Your task to perform on an android device: turn on the 12-hour format for clock Image 0: 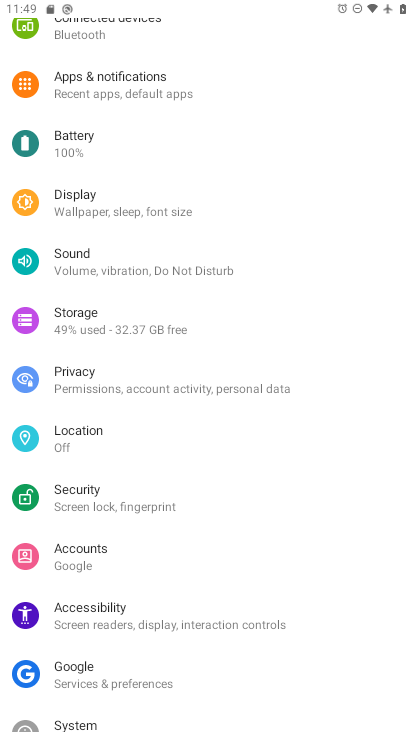
Step 0: press home button
Your task to perform on an android device: turn on the 12-hour format for clock Image 1: 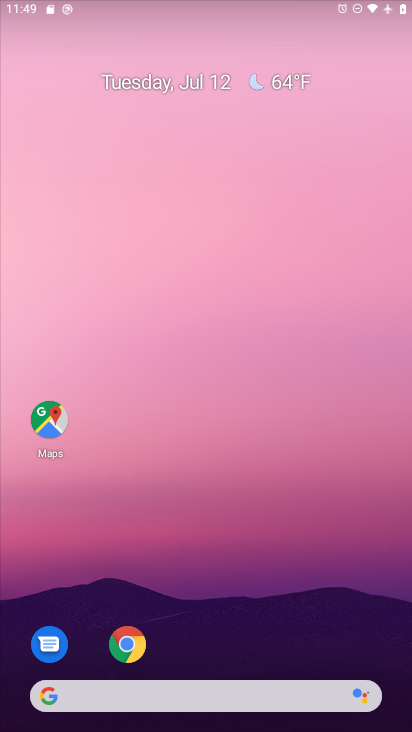
Step 1: drag from (219, 641) to (220, 174)
Your task to perform on an android device: turn on the 12-hour format for clock Image 2: 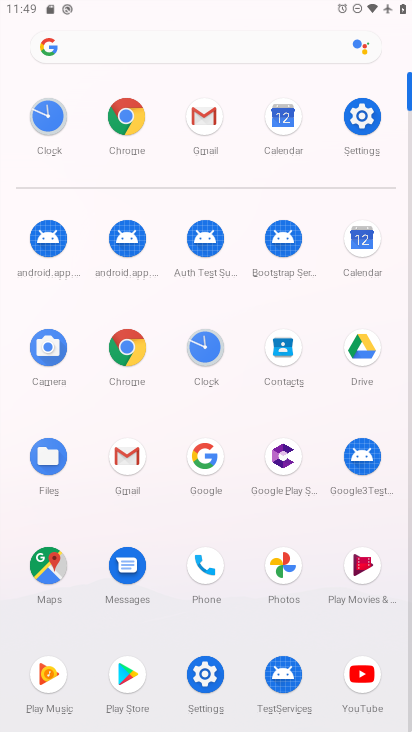
Step 2: click (56, 125)
Your task to perform on an android device: turn on the 12-hour format for clock Image 3: 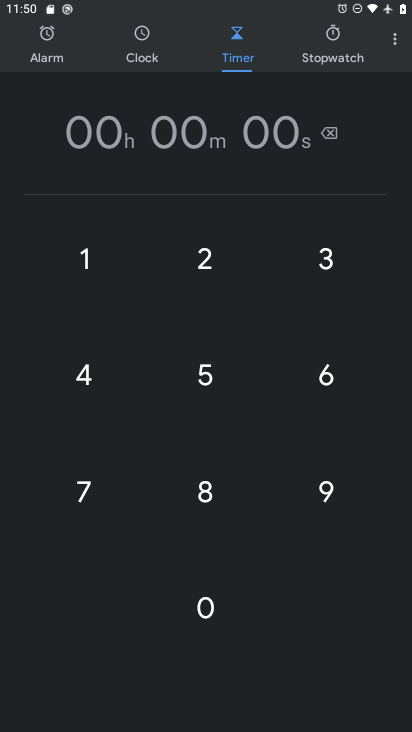
Step 3: click (391, 39)
Your task to perform on an android device: turn on the 12-hour format for clock Image 4: 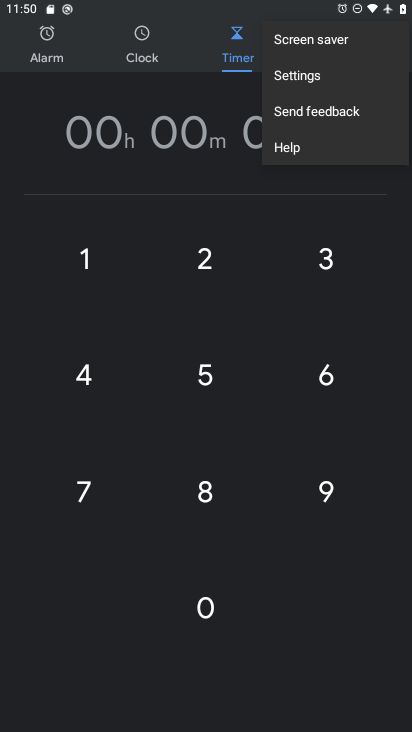
Step 4: click (311, 88)
Your task to perform on an android device: turn on the 12-hour format for clock Image 5: 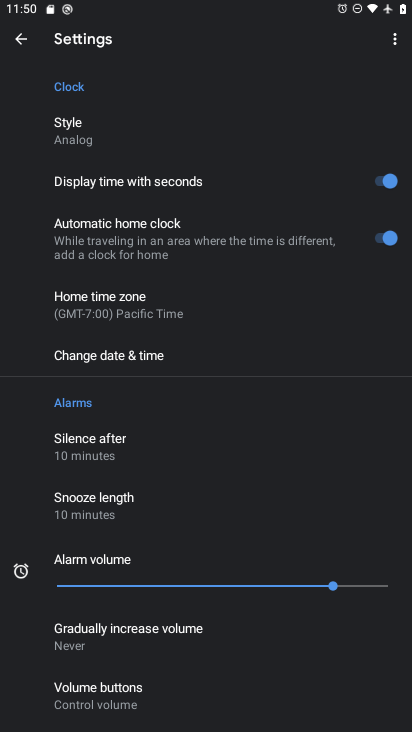
Step 5: click (35, 39)
Your task to perform on an android device: turn on the 12-hour format for clock Image 6: 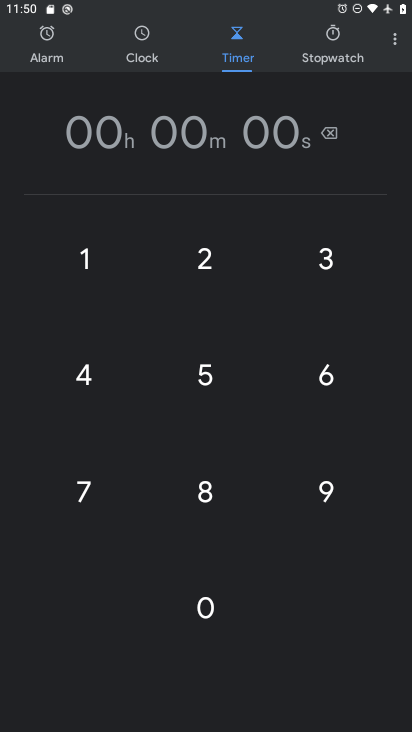
Step 6: click (390, 39)
Your task to perform on an android device: turn on the 12-hour format for clock Image 7: 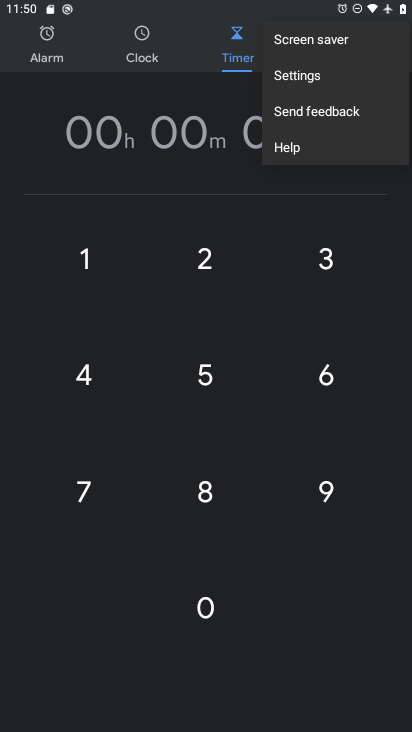
Step 7: click (315, 85)
Your task to perform on an android device: turn on the 12-hour format for clock Image 8: 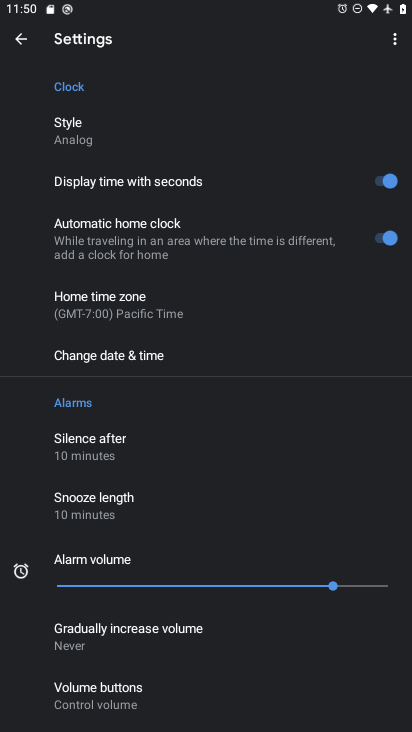
Step 8: click (214, 360)
Your task to perform on an android device: turn on the 12-hour format for clock Image 9: 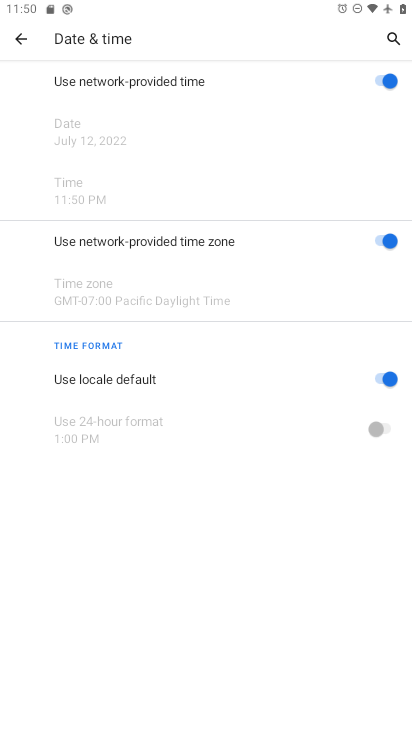
Step 9: task complete